Your task to perform on an android device: Open location settings Image 0: 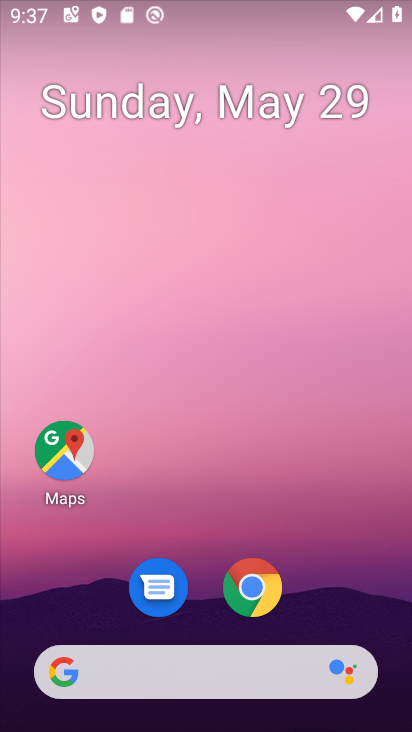
Step 0: drag from (252, 506) to (309, 33)
Your task to perform on an android device: Open location settings Image 1: 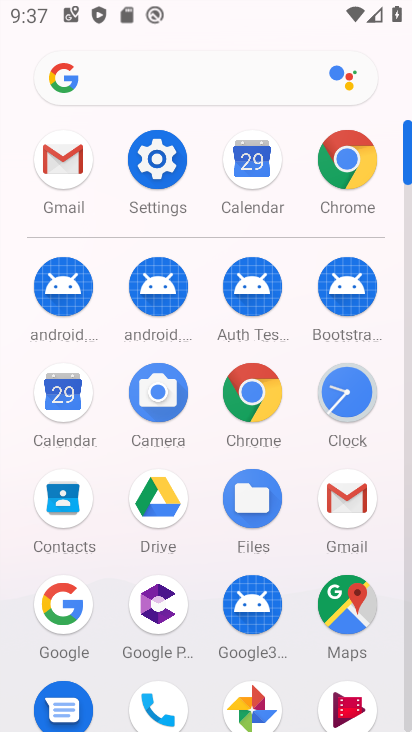
Step 1: click (154, 154)
Your task to perform on an android device: Open location settings Image 2: 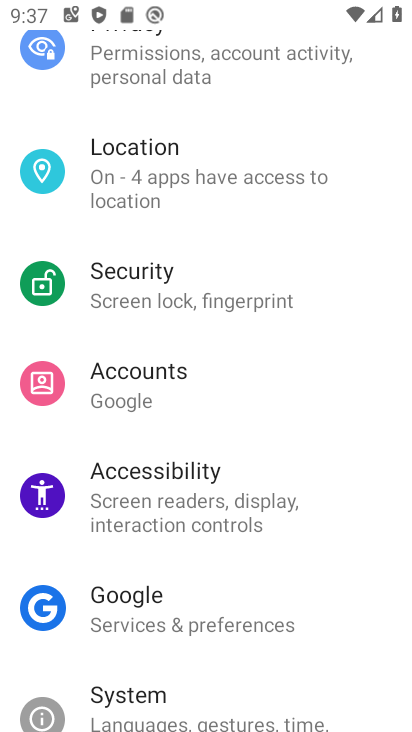
Step 2: click (153, 153)
Your task to perform on an android device: Open location settings Image 3: 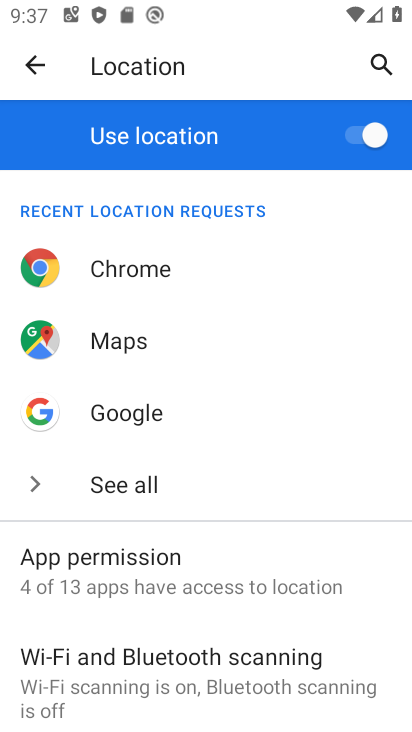
Step 3: task complete